Your task to perform on an android device: change the clock display to digital Image 0: 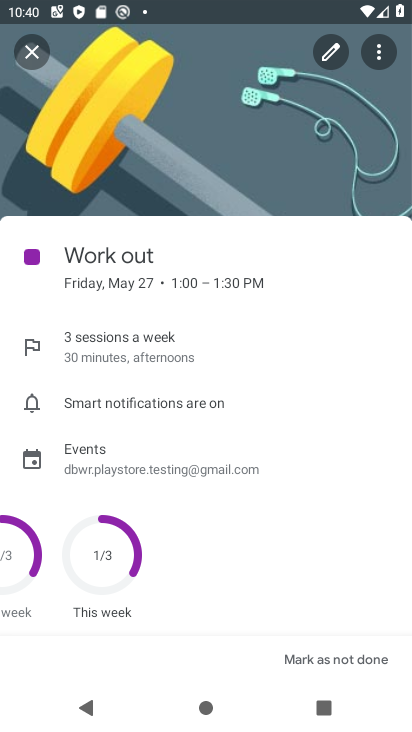
Step 0: drag from (233, 696) to (197, 190)
Your task to perform on an android device: change the clock display to digital Image 1: 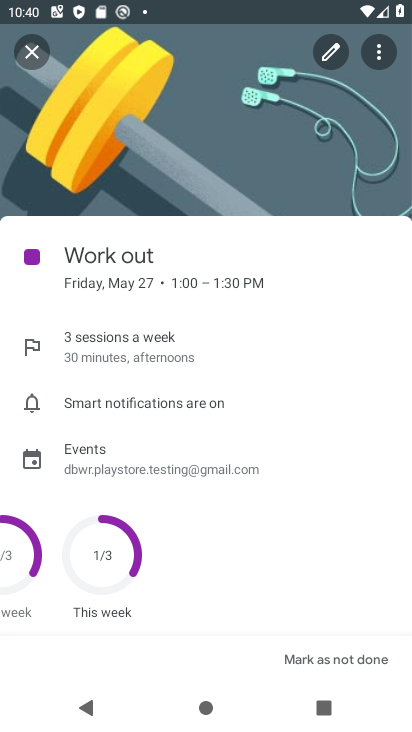
Step 1: click (40, 58)
Your task to perform on an android device: change the clock display to digital Image 2: 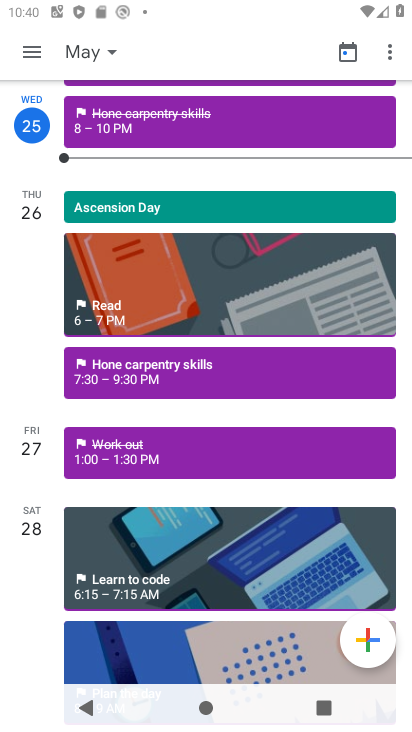
Step 2: press back button
Your task to perform on an android device: change the clock display to digital Image 3: 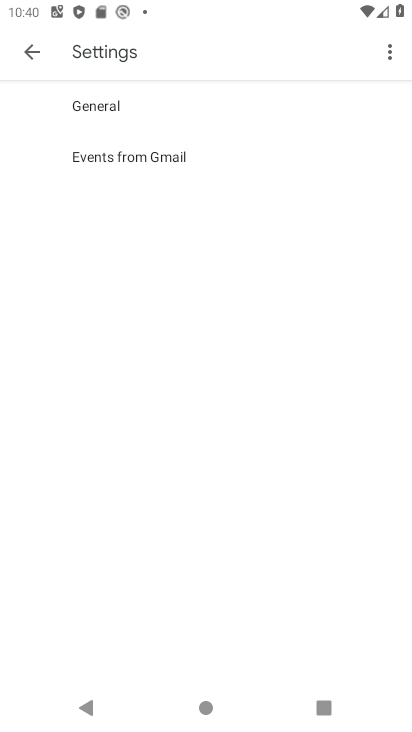
Step 3: click (24, 52)
Your task to perform on an android device: change the clock display to digital Image 4: 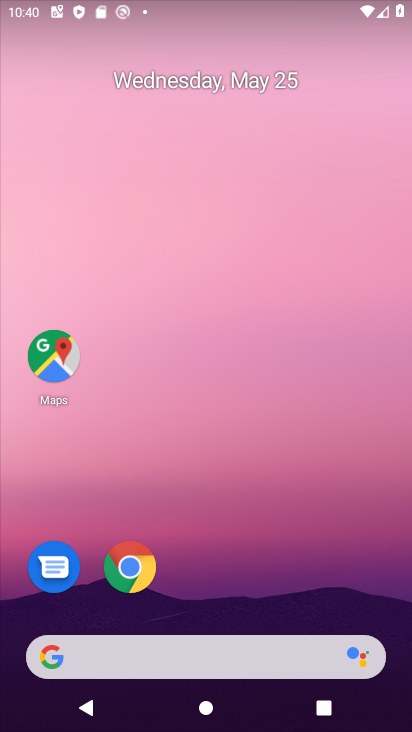
Step 4: drag from (282, 645) to (150, 40)
Your task to perform on an android device: change the clock display to digital Image 5: 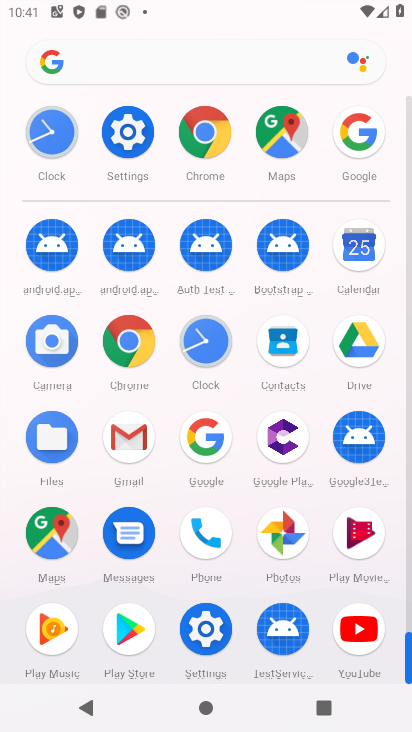
Step 5: click (207, 352)
Your task to perform on an android device: change the clock display to digital Image 6: 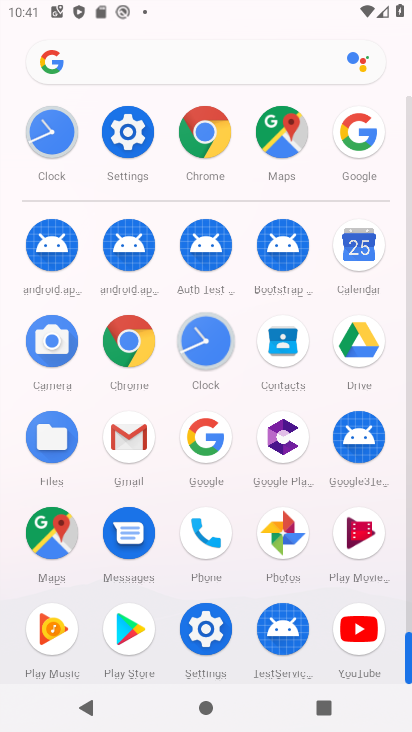
Step 6: click (207, 352)
Your task to perform on an android device: change the clock display to digital Image 7: 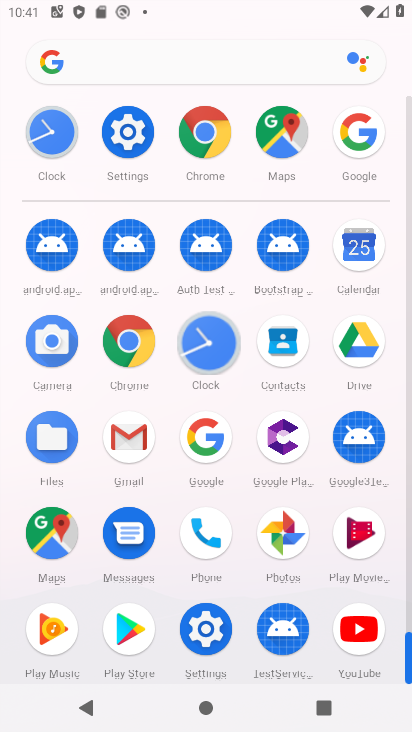
Step 7: click (207, 352)
Your task to perform on an android device: change the clock display to digital Image 8: 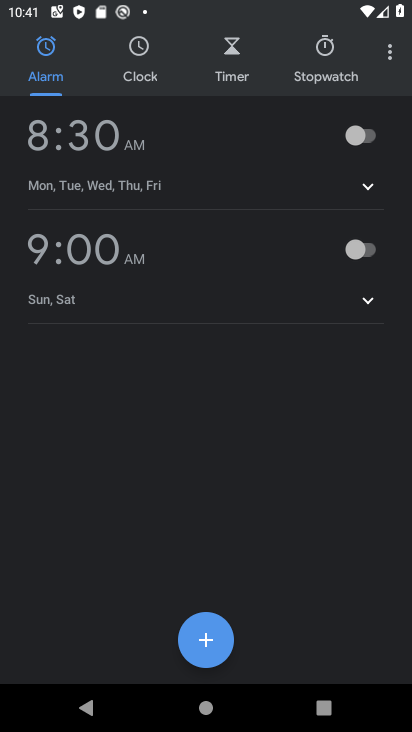
Step 8: drag from (318, 553) to (257, 310)
Your task to perform on an android device: change the clock display to digital Image 9: 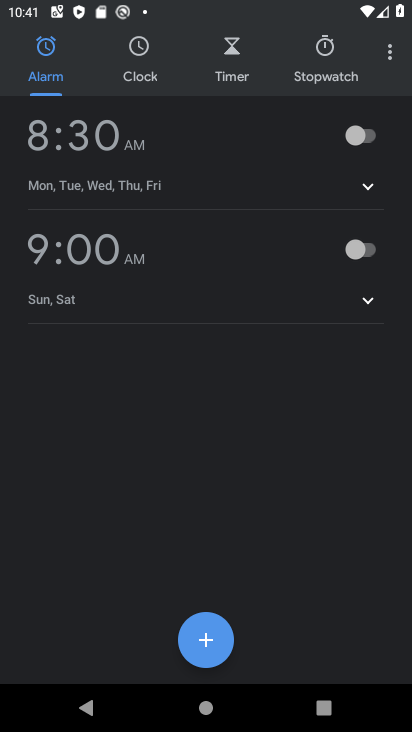
Step 9: drag from (287, 641) to (219, 180)
Your task to perform on an android device: change the clock display to digital Image 10: 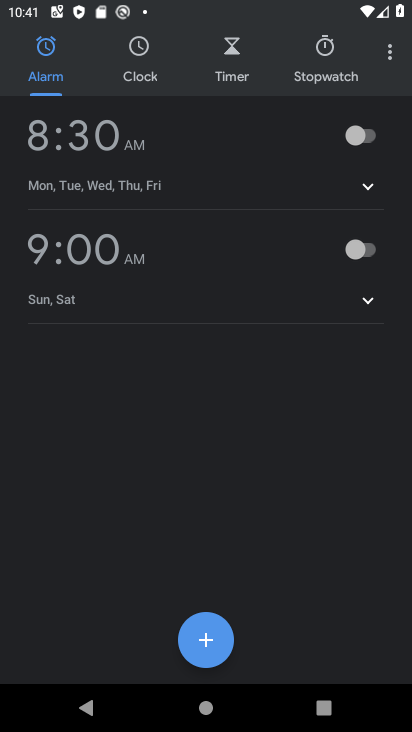
Step 10: click (382, 54)
Your task to perform on an android device: change the clock display to digital Image 11: 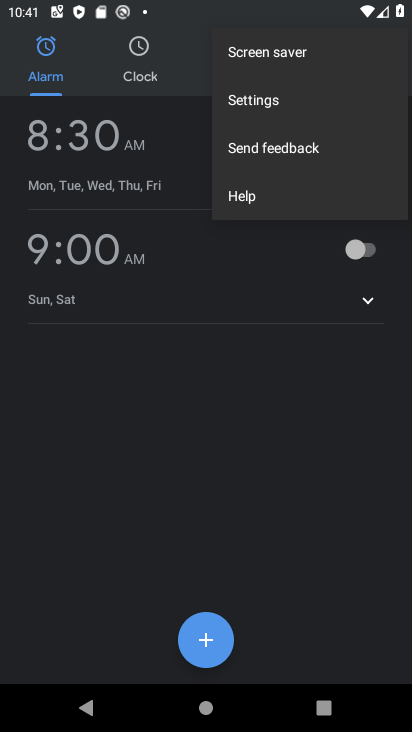
Step 11: click (248, 107)
Your task to perform on an android device: change the clock display to digital Image 12: 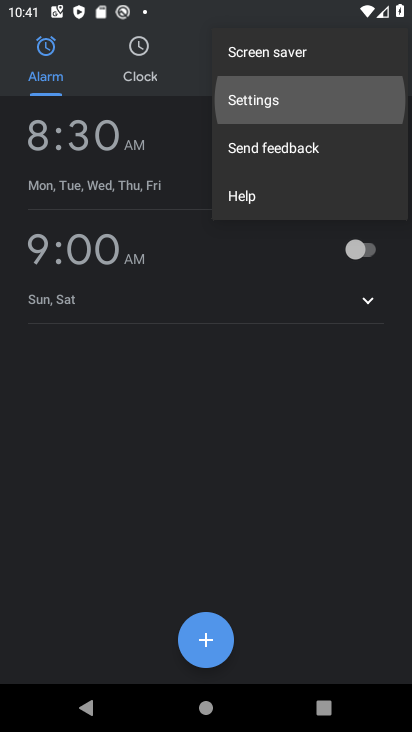
Step 12: click (248, 107)
Your task to perform on an android device: change the clock display to digital Image 13: 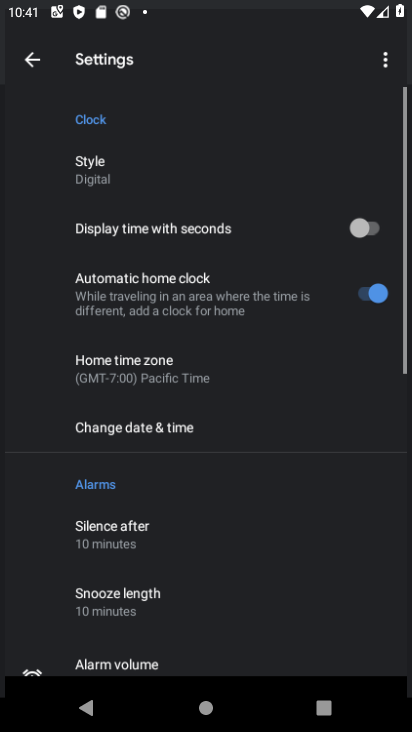
Step 13: click (248, 107)
Your task to perform on an android device: change the clock display to digital Image 14: 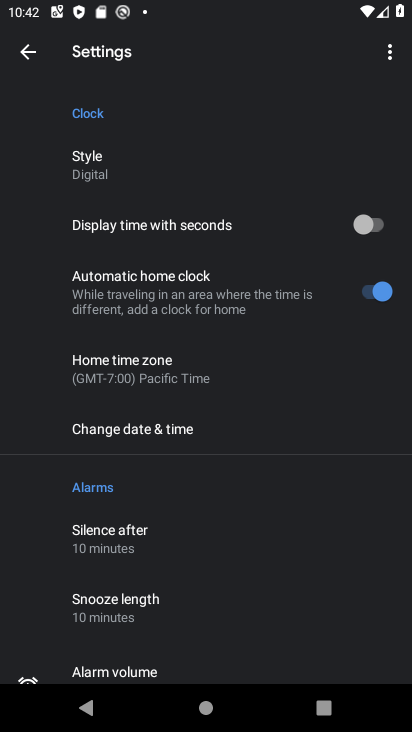
Step 14: drag from (149, 408) to (134, 166)
Your task to perform on an android device: change the clock display to digital Image 15: 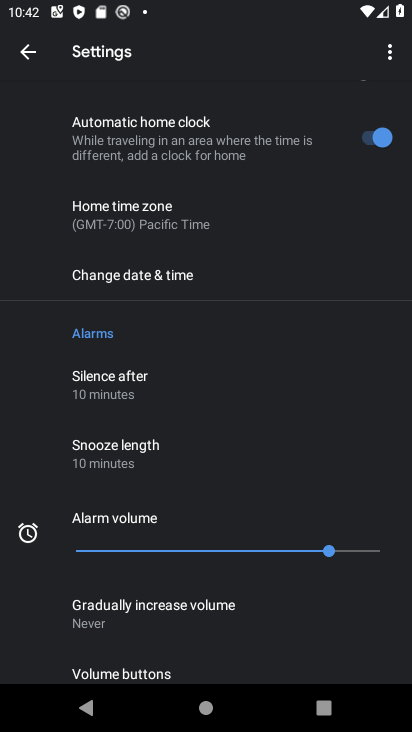
Step 15: drag from (219, 461) to (159, 132)
Your task to perform on an android device: change the clock display to digital Image 16: 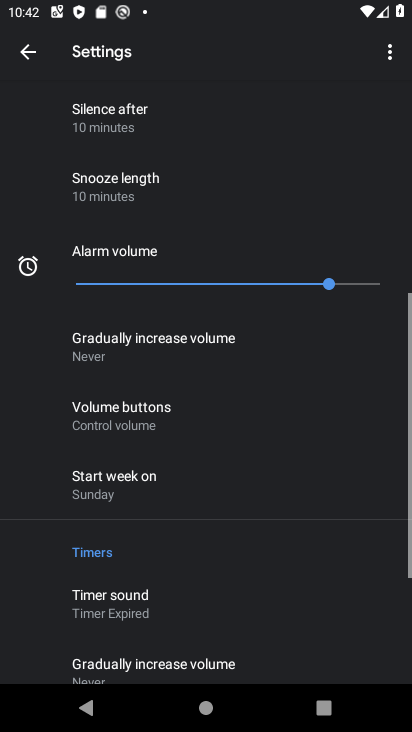
Step 16: drag from (219, 351) to (185, 68)
Your task to perform on an android device: change the clock display to digital Image 17: 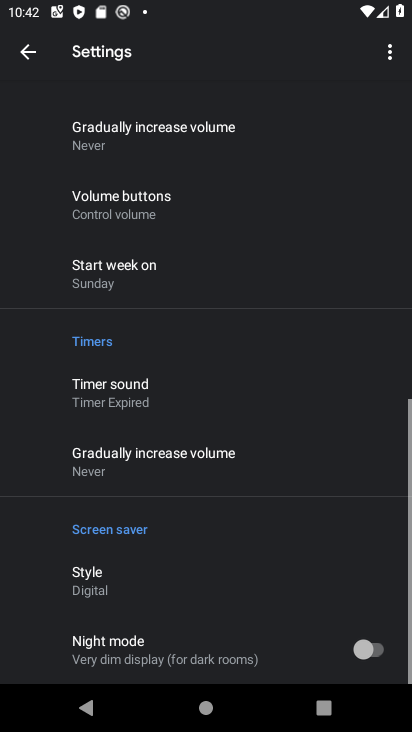
Step 17: drag from (216, 405) to (197, 80)
Your task to perform on an android device: change the clock display to digital Image 18: 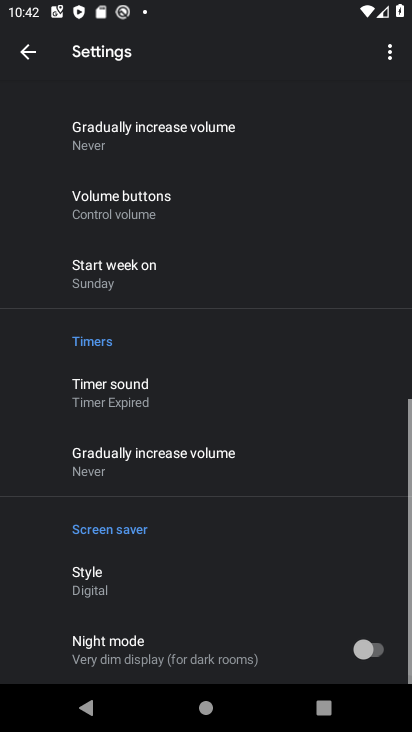
Step 18: drag from (202, 416) to (224, 58)
Your task to perform on an android device: change the clock display to digital Image 19: 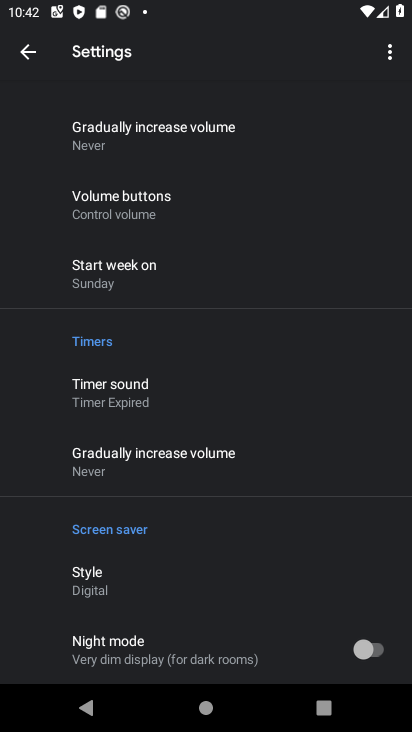
Step 19: drag from (252, 396) to (260, 113)
Your task to perform on an android device: change the clock display to digital Image 20: 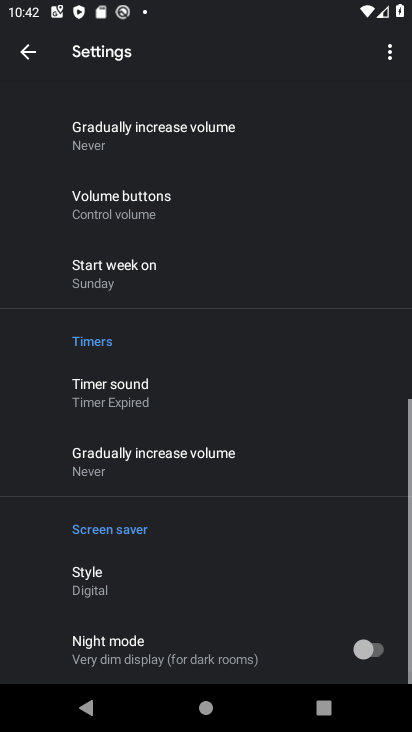
Step 20: drag from (265, 436) to (233, 174)
Your task to perform on an android device: change the clock display to digital Image 21: 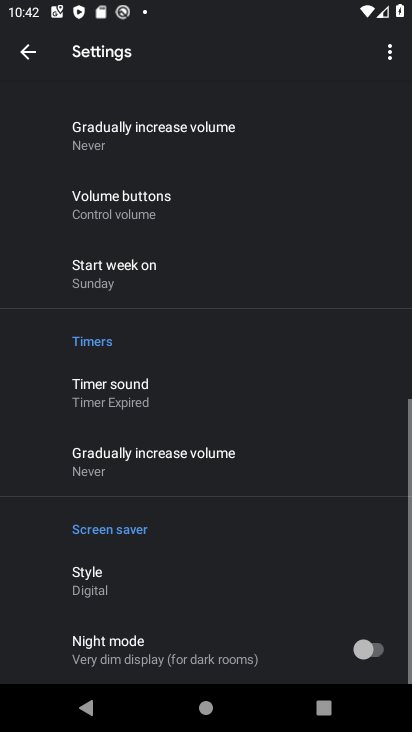
Step 21: drag from (253, 419) to (240, 217)
Your task to perform on an android device: change the clock display to digital Image 22: 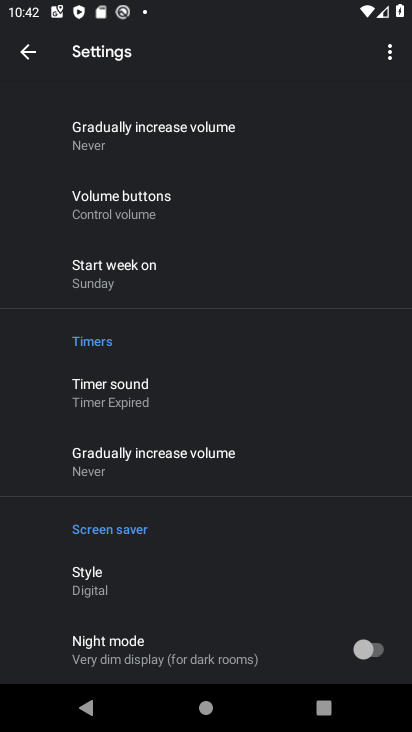
Step 22: drag from (244, 400) to (221, 12)
Your task to perform on an android device: change the clock display to digital Image 23: 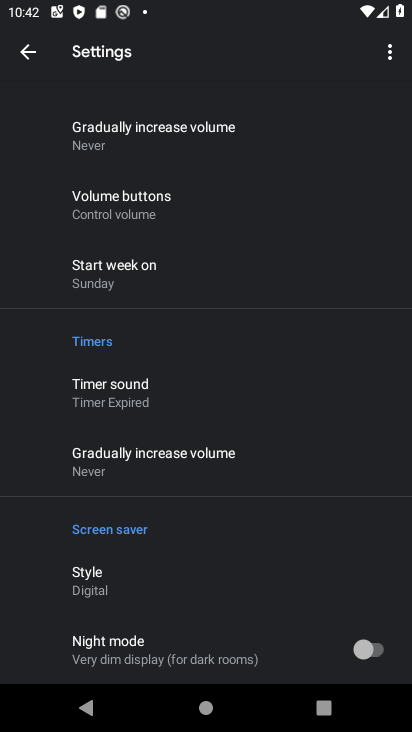
Step 23: drag from (149, 589) to (171, 34)
Your task to perform on an android device: change the clock display to digital Image 24: 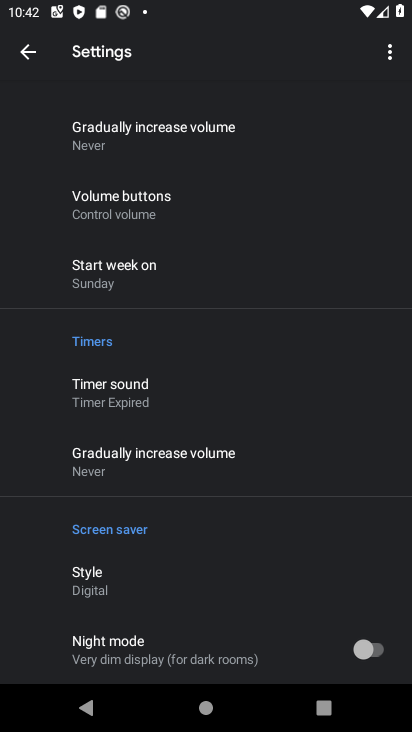
Step 24: drag from (126, 235) to (187, 509)
Your task to perform on an android device: change the clock display to digital Image 25: 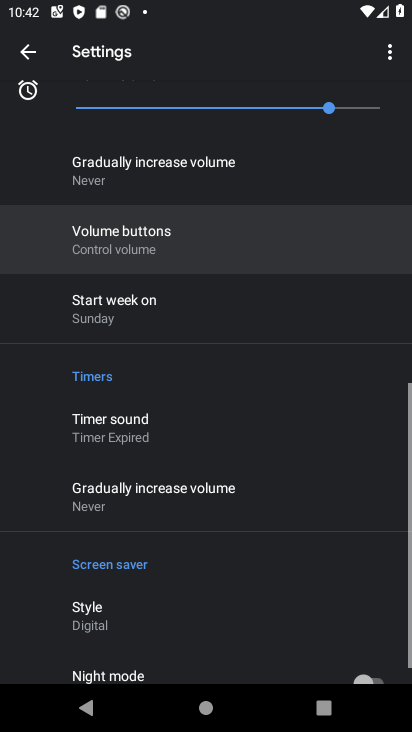
Step 25: drag from (199, 190) to (204, 469)
Your task to perform on an android device: change the clock display to digital Image 26: 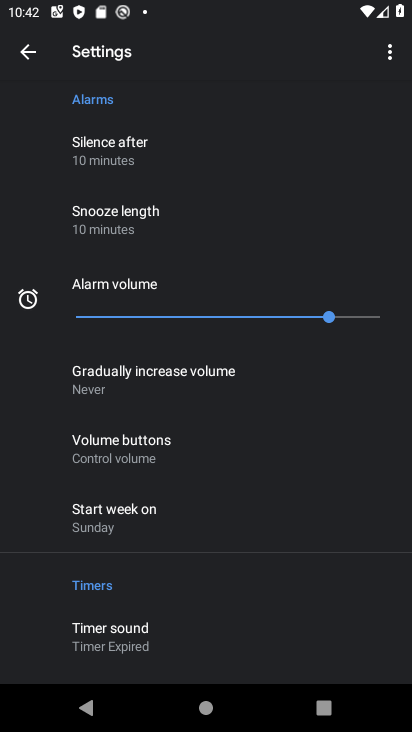
Step 26: click (168, 490)
Your task to perform on an android device: change the clock display to digital Image 27: 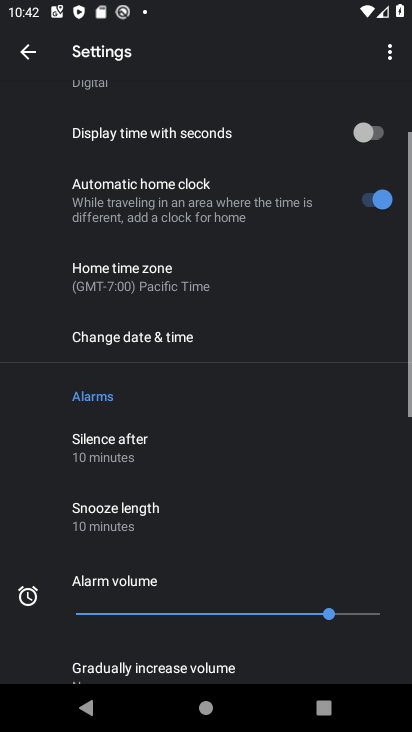
Step 27: drag from (169, 197) to (177, 547)
Your task to perform on an android device: change the clock display to digital Image 28: 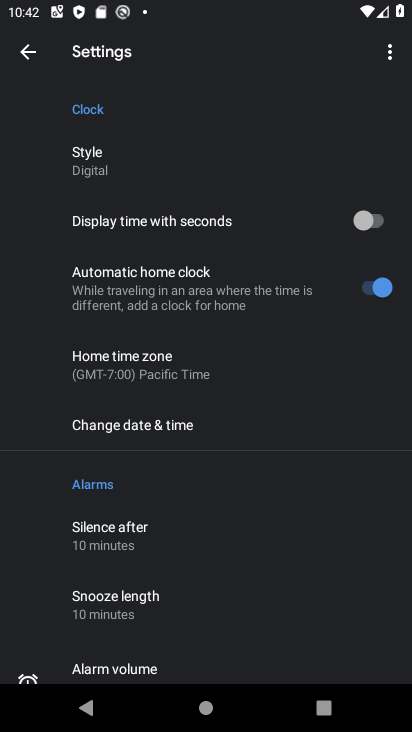
Step 28: click (168, 154)
Your task to perform on an android device: change the clock display to digital Image 29: 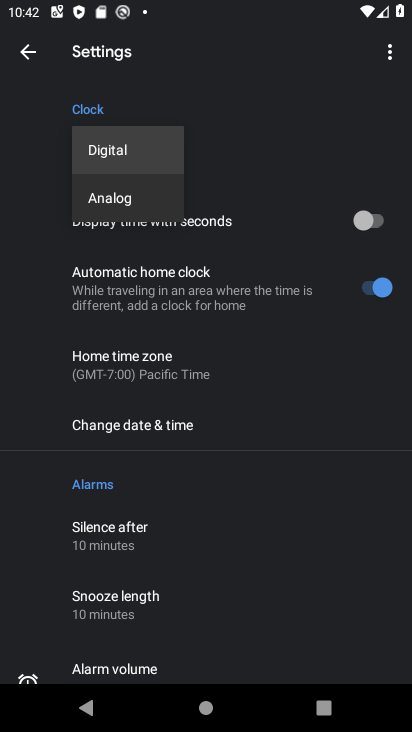
Step 29: click (111, 143)
Your task to perform on an android device: change the clock display to digital Image 30: 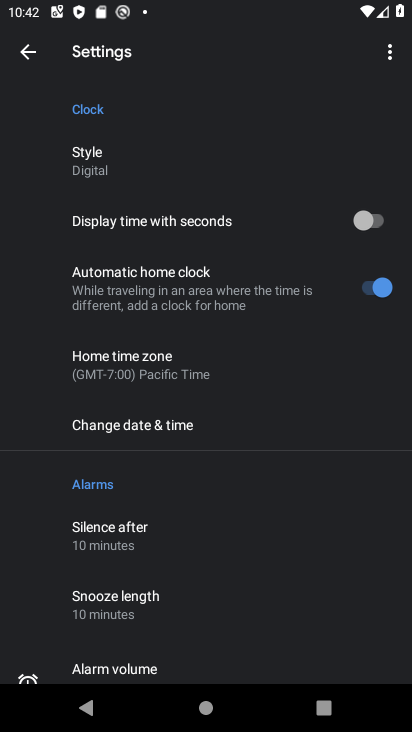
Step 30: task complete